Your task to perform on an android device: turn vacation reply on in the gmail app Image 0: 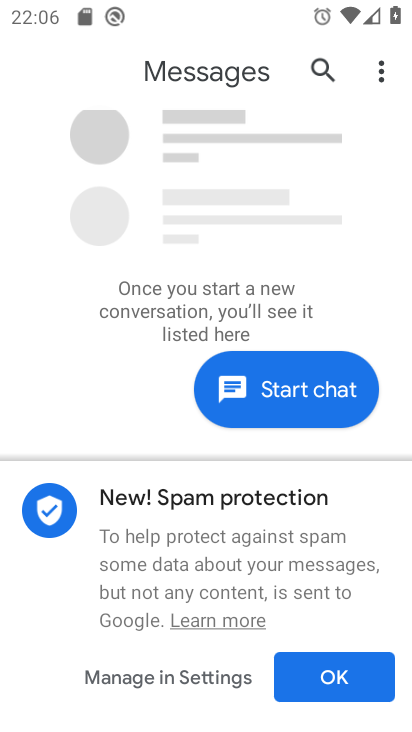
Step 0: press home button
Your task to perform on an android device: turn vacation reply on in the gmail app Image 1: 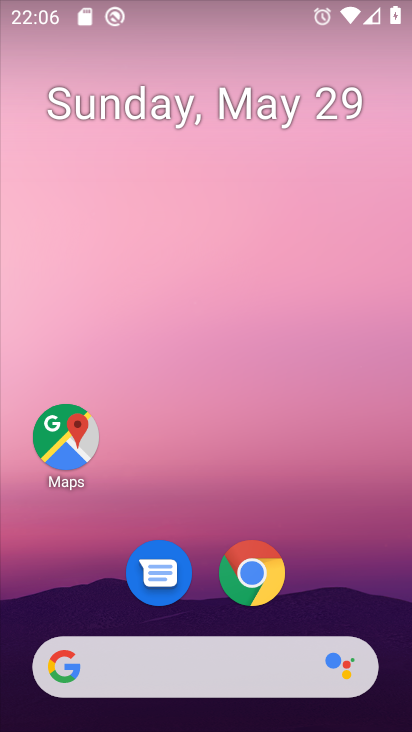
Step 1: drag from (214, 489) to (301, 19)
Your task to perform on an android device: turn vacation reply on in the gmail app Image 2: 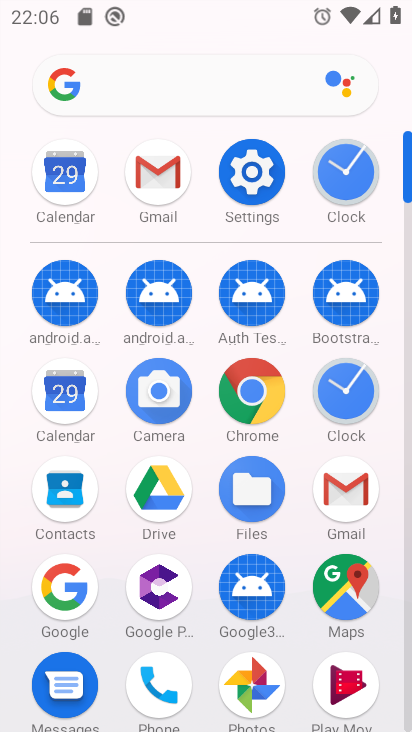
Step 2: click (167, 178)
Your task to perform on an android device: turn vacation reply on in the gmail app Image 3: 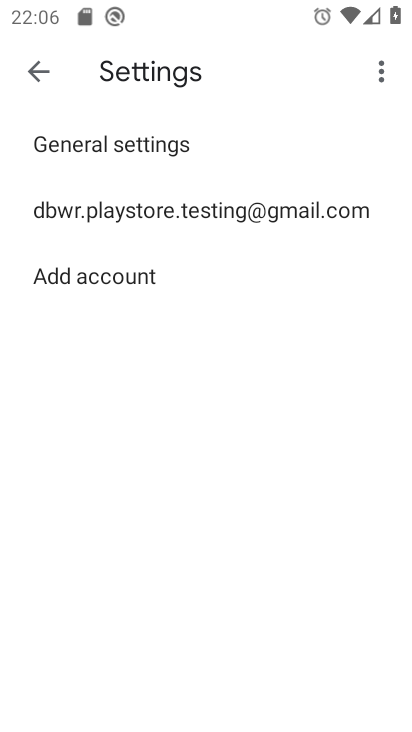
Step 3: click (187, 208)
Your task to perform on an android device: turn vacation reply on in the gmail app Image 4: 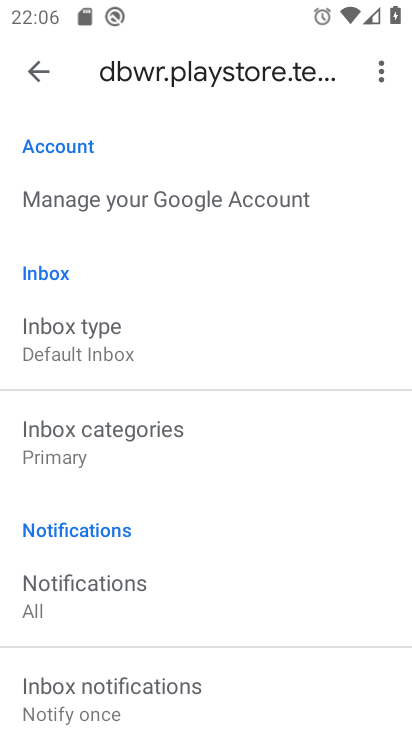
Step 4: drag from (203, 524) to (269, 170)
Your task to perform on an android device: turn vacation reply on in the gmail app Image 5: 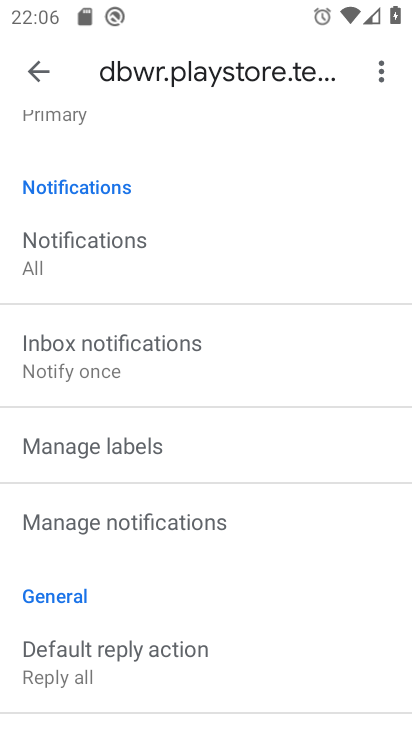
Step 5: drag from (222, 562) to (305, 76)
Your task to perform on an android device: turn vacation reply on in the gmail app Image 6: 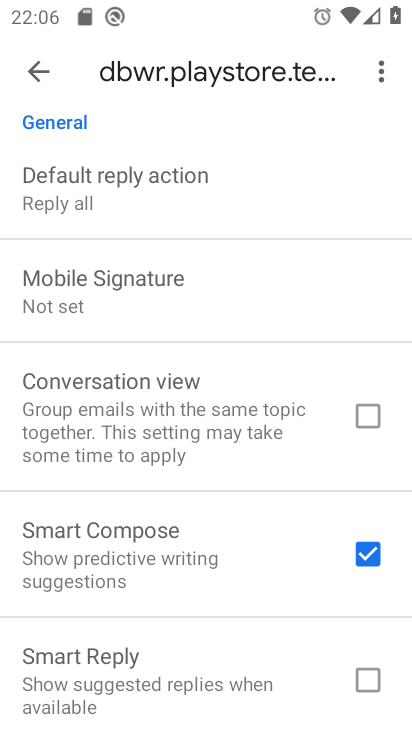
Step 6: drag from (234, 545) to (278, 134)
Your task to perform on an android device: turn vacation reply on in the gmail app Image 7: 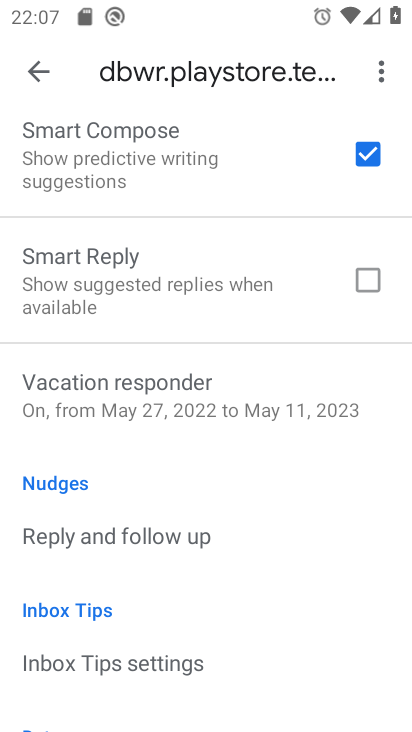
Step 7: click (251, 397)
Your task to perform on an android device: turn vacation reply on in the gmail app Image 8: 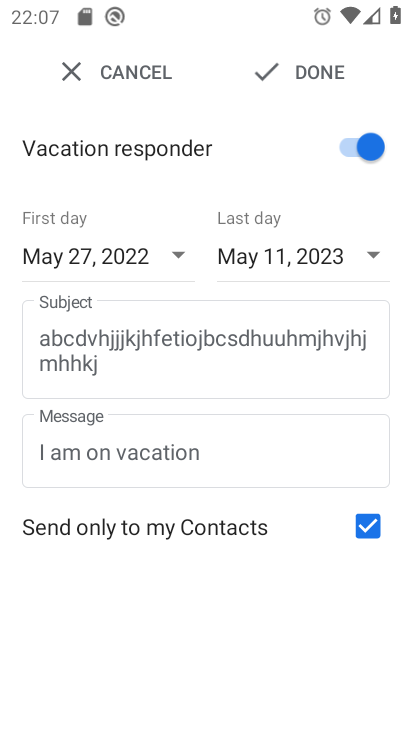
Step 8: task complete